Your task to perform on an android device: change the clock display to show seconds Image 0: 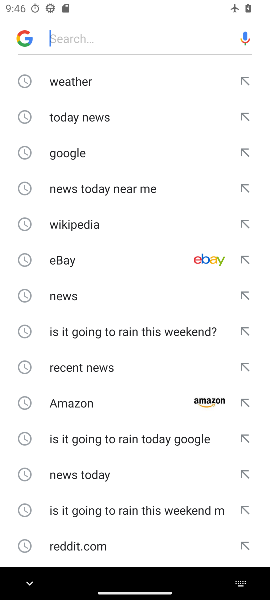
Step 0: press home button
Your task to perform on an android device: change the clock display to show seconds Image 1: 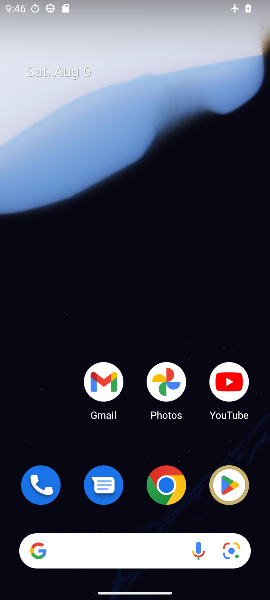
Step 1: drag from (146, 437) to (215, 125)
Your task to perform on an android device: change the clock display to show seconds Image 2: 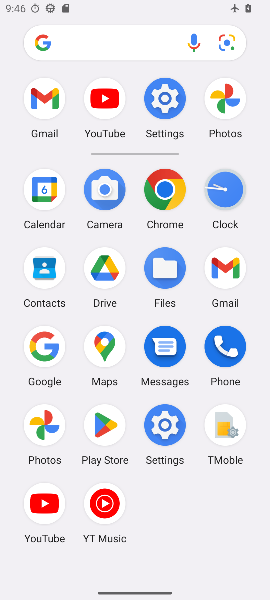
Step 2: click (225, 194)
Your task to perform on an android device: change the clock display to show seconds Image 3: 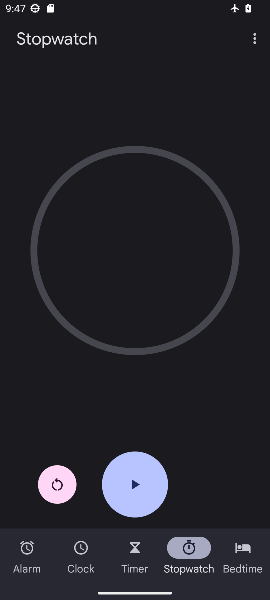
Step 3: click (259, 32)
Your task to perform on an android device: change the clock display to show seconds Image 4: 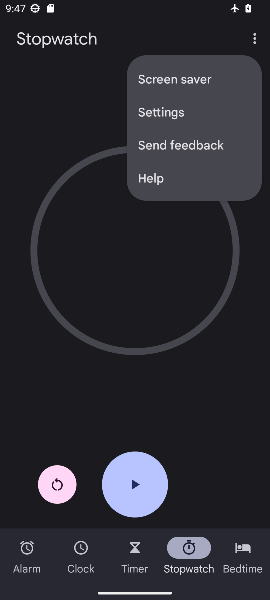
Step 4: click (198, 113)
Your task to perform on an android device: change the clock display to show seconds Image 5: 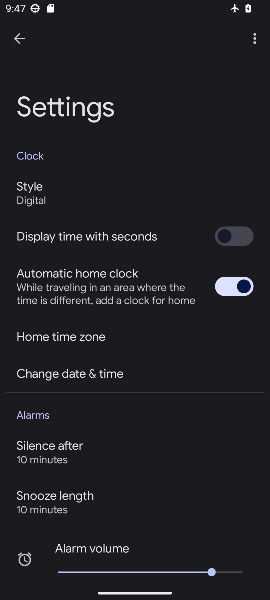
Step 5: click (223, 237)
Your task to perform on an android device: change the clock display to show seconds Image 6: 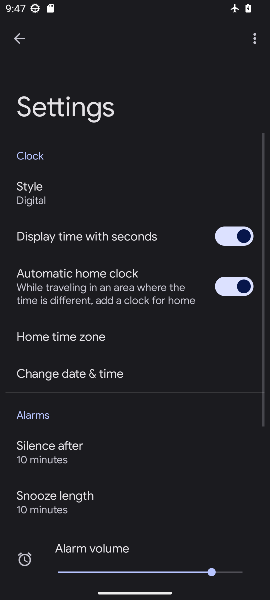
Step 6: task complete